Your task to perform on an android device: Is it going to rain today? Image 0: 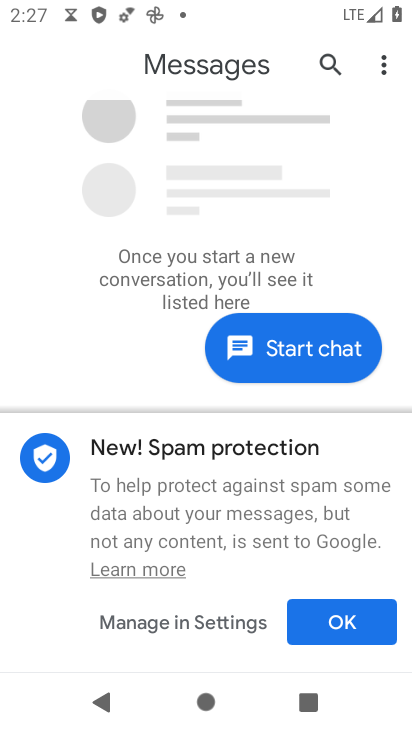
Step 0: press home button
Your task to perform on an android device: Is it going to rain today? Image 1: 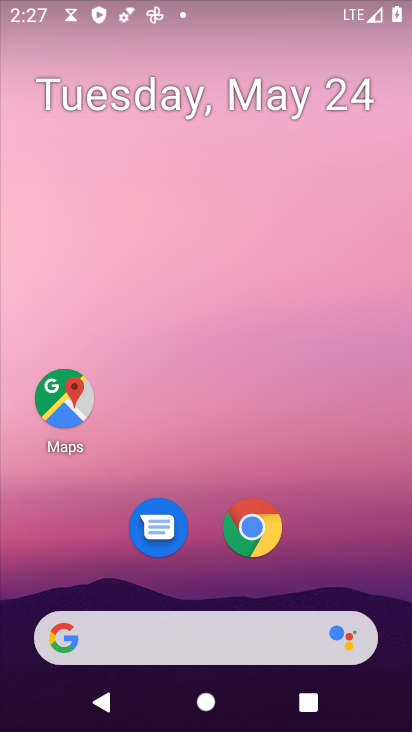
Step 1: click (74, 647)
Your task to perform on an android device: Is it going to rain today? Image 2: 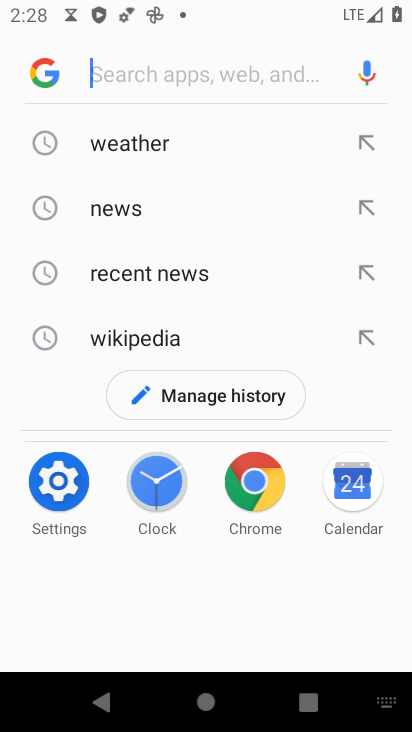
Step 2: click (142, 138)
Your task to perform on an android device: Is it going to rain today? Image 3: 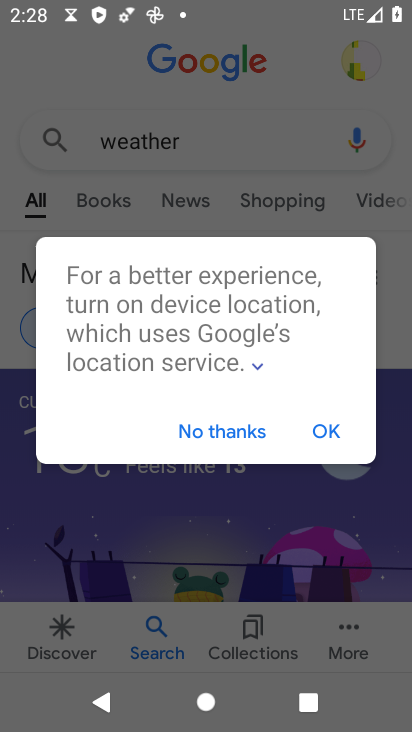
Step 3: click (314, 432)
Your task to perform on an android device: Is it going to rain today? Image 4: 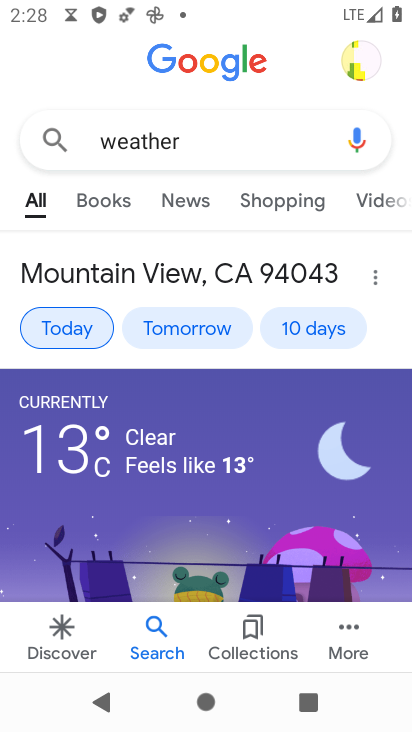
Step 4: task complete